Your task to perform on an android device: Open ESPN.com Image 0: 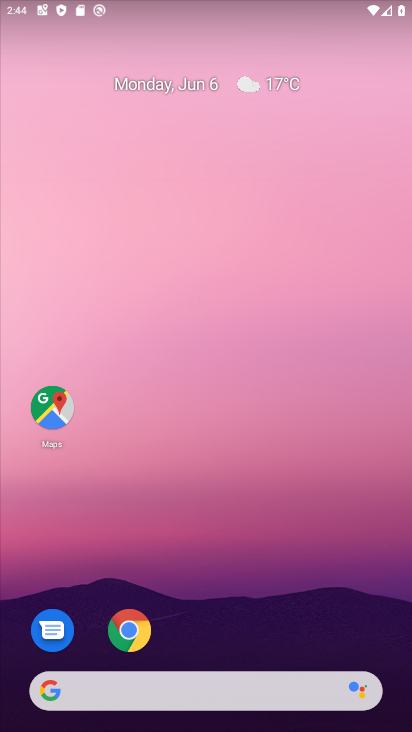
Step 0: click (129, 634)
Your task to perform on an android device: Open ESPN.com Image 1: 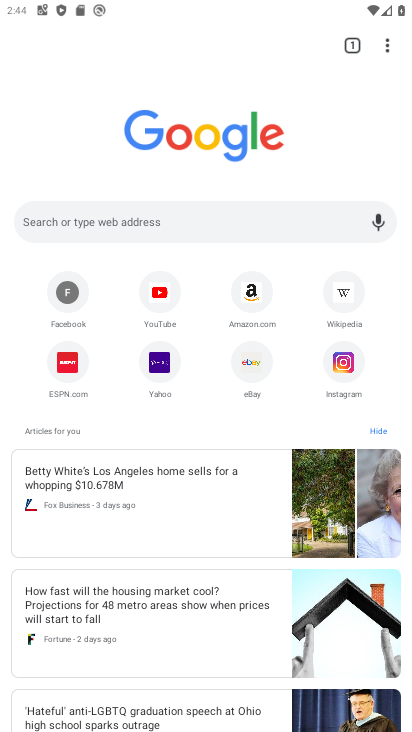
Step 1: click (59, 367)
Your task to perform on an android device: Open ESPN.com Image 2: 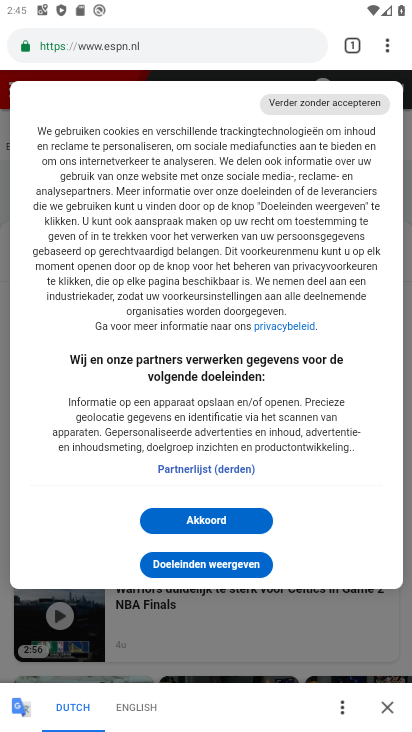
Step 2: task complete